Your task to perform on an android device: install app "Google Pay: Save, Pay, Manage" Image 0: 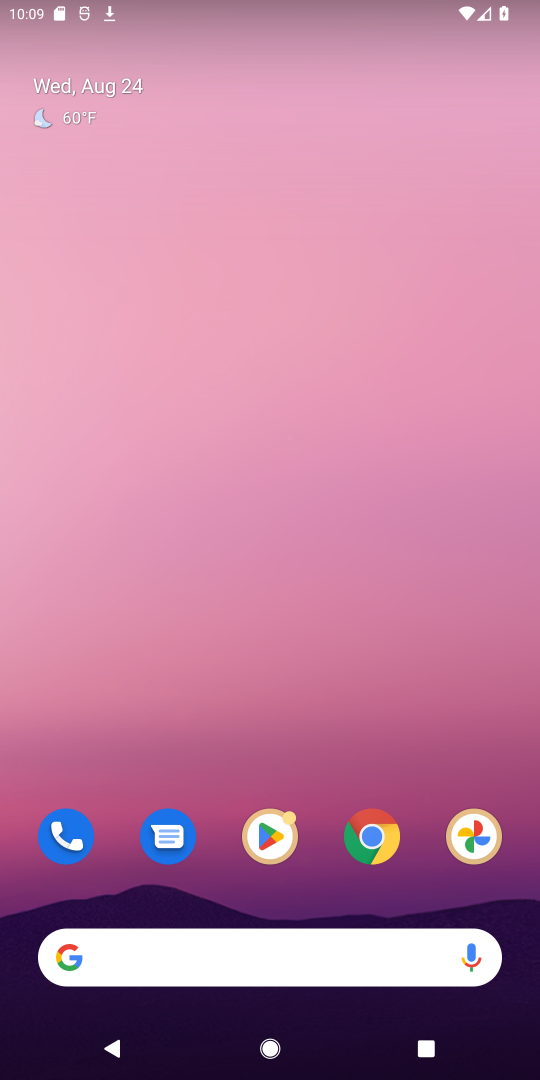
Step 0: click (270, 832)
Your task to perform on an android device: install app "Google Pay: Save, Pay, Manage" Image 1: 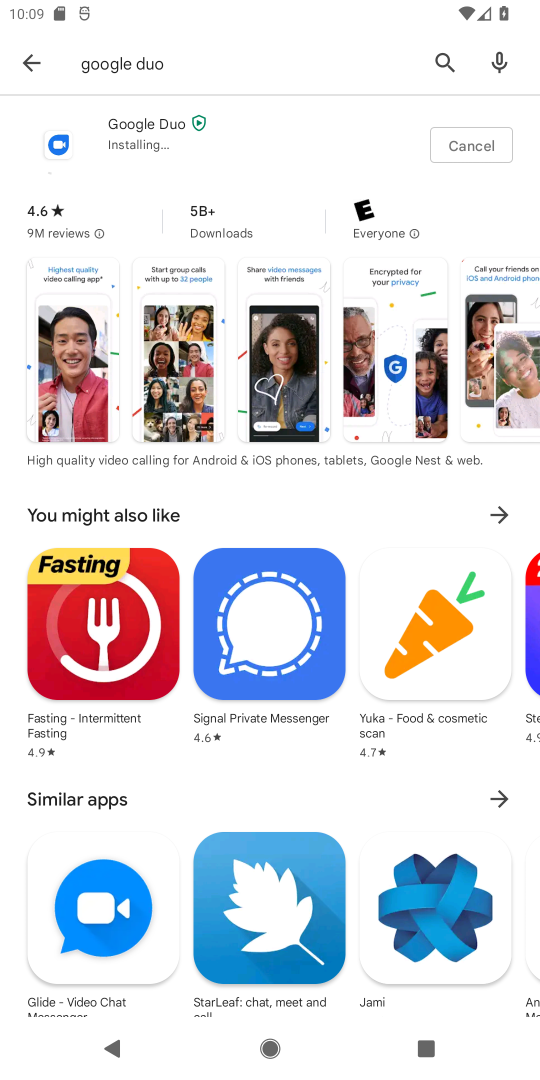
Step 1: click (440, 66)
Your task to perform on an android device: install app "Google Pay: Save, Pay, Manage" Image 2: 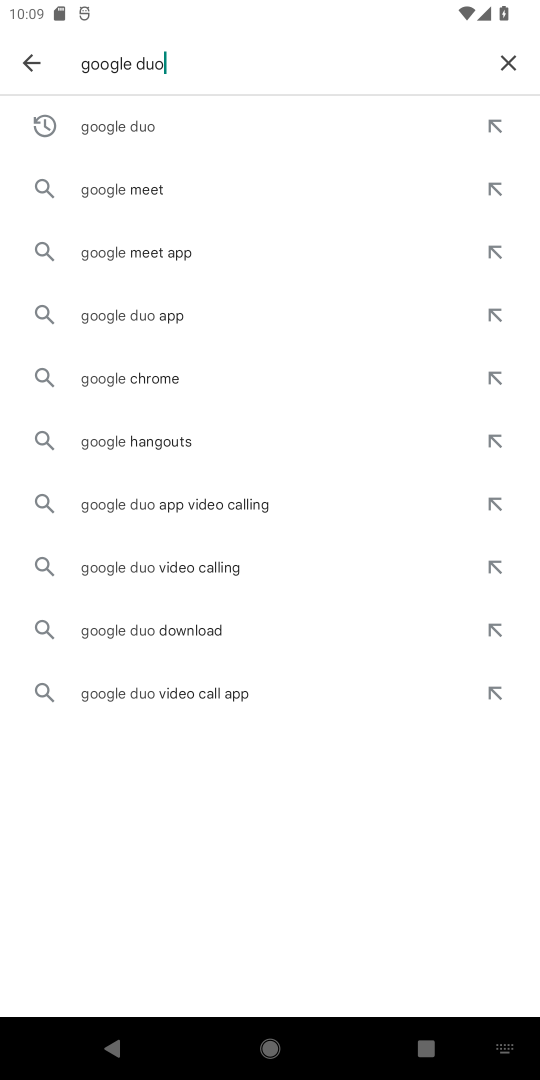
Step 2: click (495, 52)
Your task to perform on an android device: install app "Google Pay: Save, Pay, Manage" Image 3: 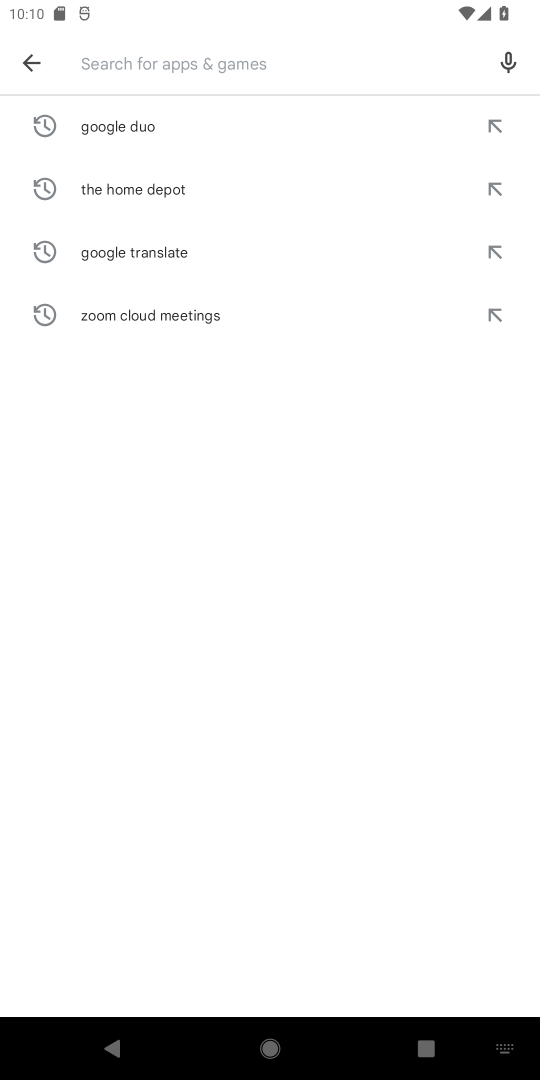
Step 3: type "Google Pay: Save, Pay, Manage"
Your task to perform on an android device: install app "Google Pay: Save, Pay, Manage" Image 4: 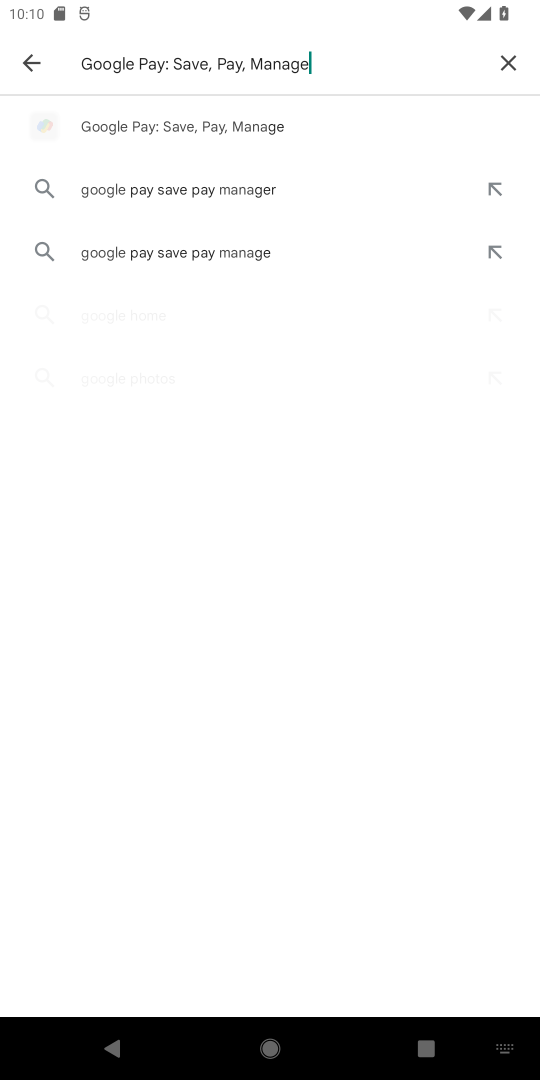
Step 4: type ""
Your task to perform on an android device: install app "Google Pay: Save, Pay, Manage" Image 5: 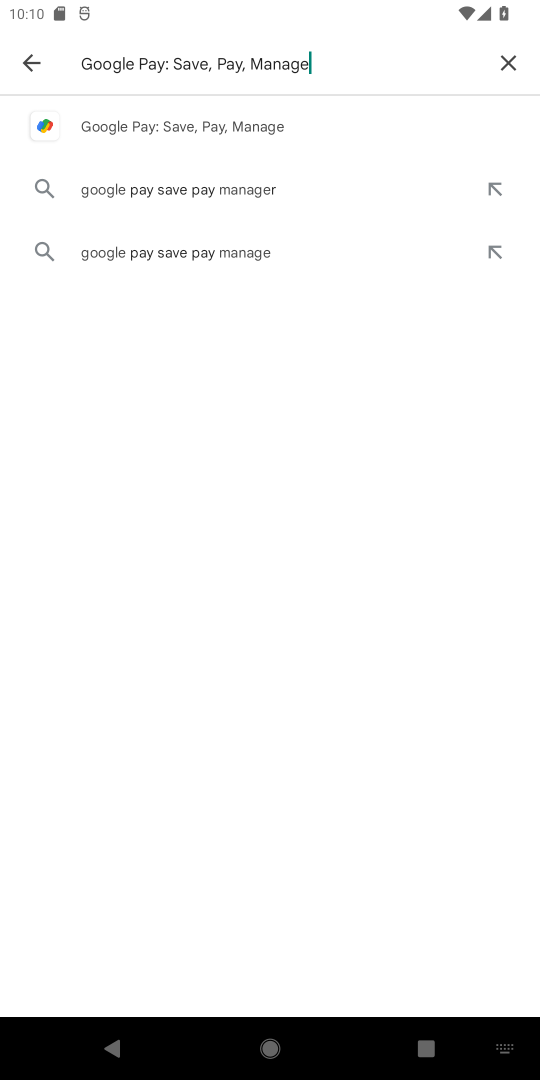
Step 5: click (177, 126)
Your task to perform on an android device: install app "Google Pay: Save, Pay, Manage" Image 6: 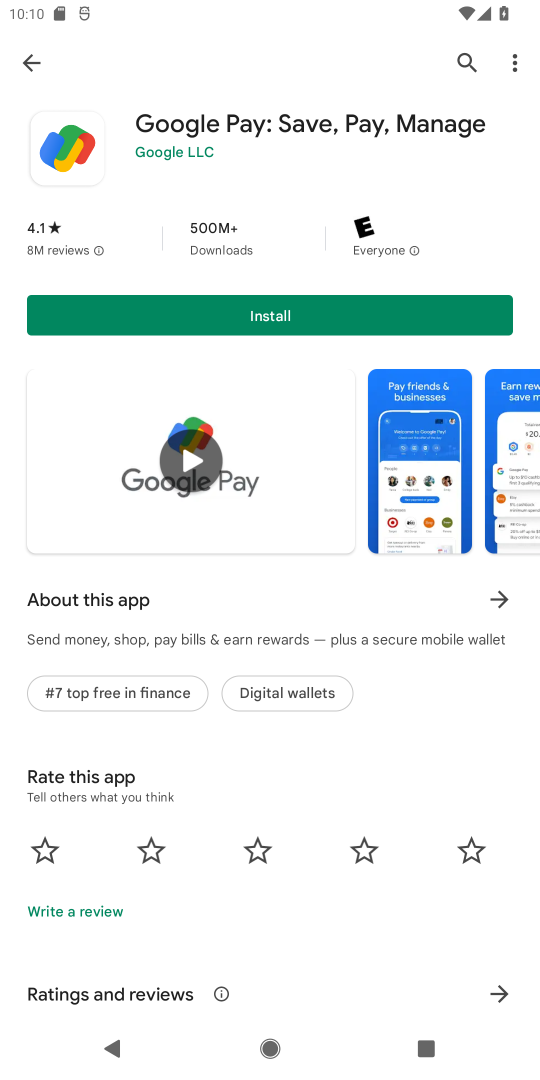
Step 6: click (308, 310)
Your task to perform on an android device: install app "Google Pay: Save, Pay, Manage" Image 7: 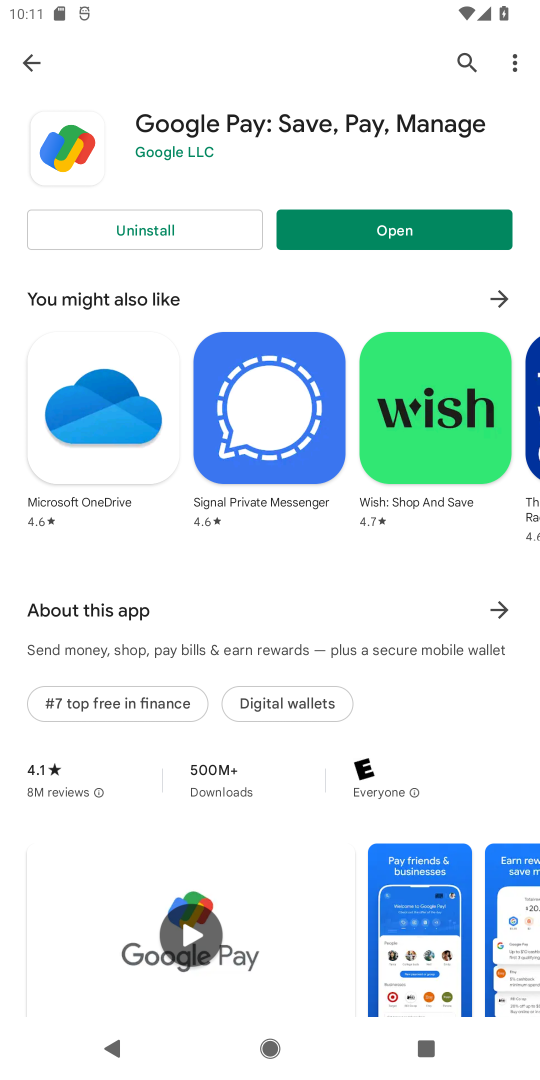
Step 7: task complete